Your task to perform on an android device: Open Youtube and go to the subscriptions tab Image 0: 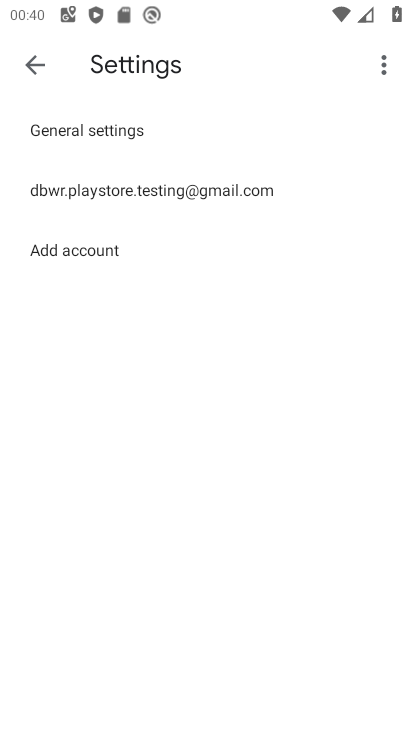
Step 0: press home button
Your task to perform on an android device: Open Youtube and go to the subscriptions tab Image 1: 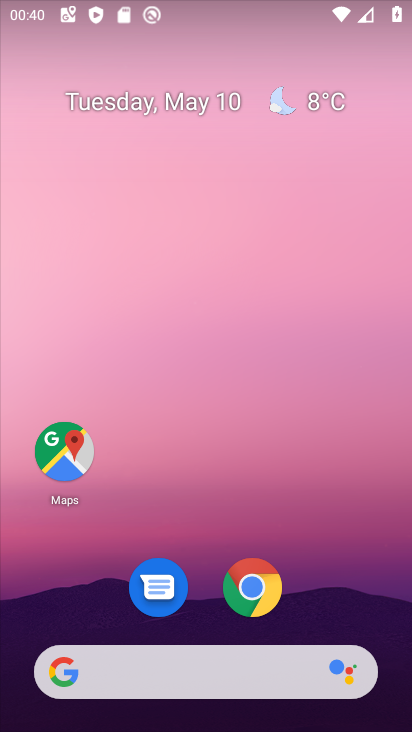
Step 1: drag from (379, 401) to (375, 285)
Your task to perform on an android device: Open Youtube and go to the subscriptions tab Image 2: 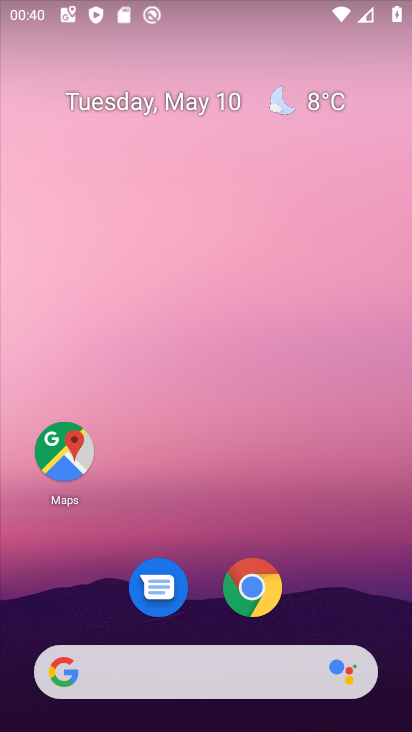
Step 2: drag from (395, 662) to (377, 133)
Your task to perform on an android device: Open Youtube and go to the subscriptions tab Image 3: 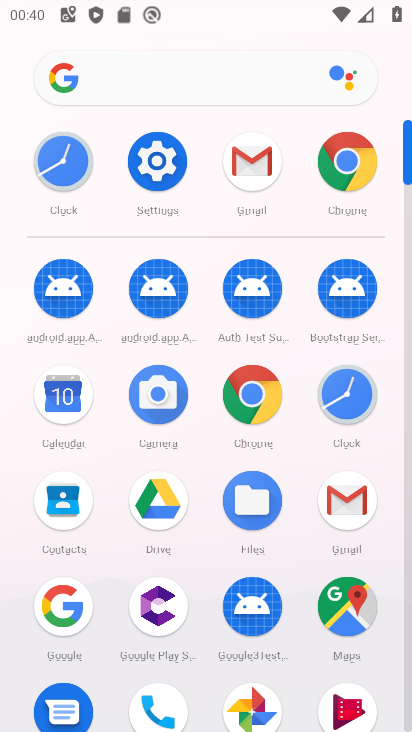
Step 3: click (404, 55)
Your task to perform on an android device: Open Youtube and go to the subscriptions tab Image 4: 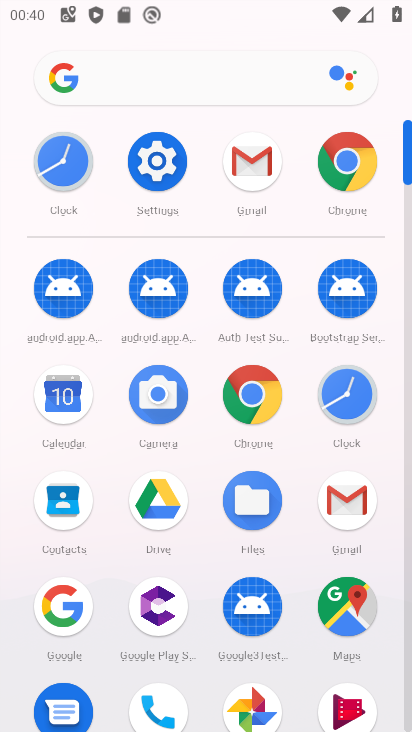
Step 4: drag from (408, 141) to (408, 49)
Your task to perform on an android device: Open Youtube and go to the subscriptions tab Image 5: 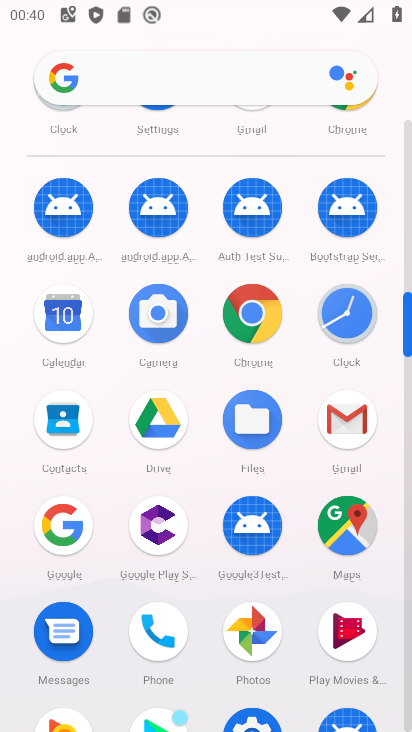
Step 5: drag from (411, 307) to (397, 407)
Your task to perform on an android device: Open Youtube and go to the subscriptions tab Image 6: 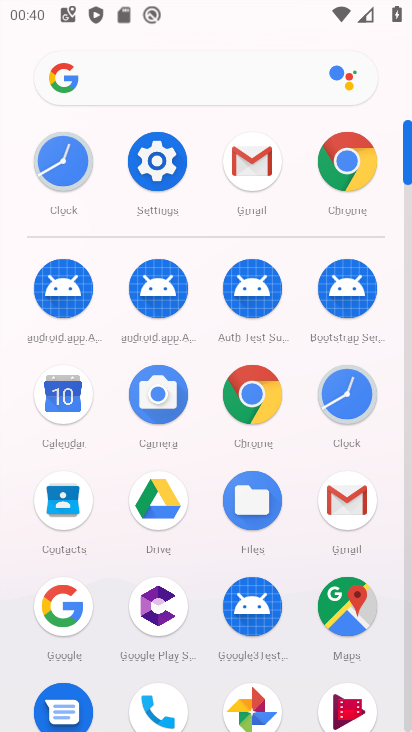
Step 6: drag from (407, 133) to (407, 39)
Your task to perform on an android device: Open Youtube and go to the subscriptions tab Image 7: 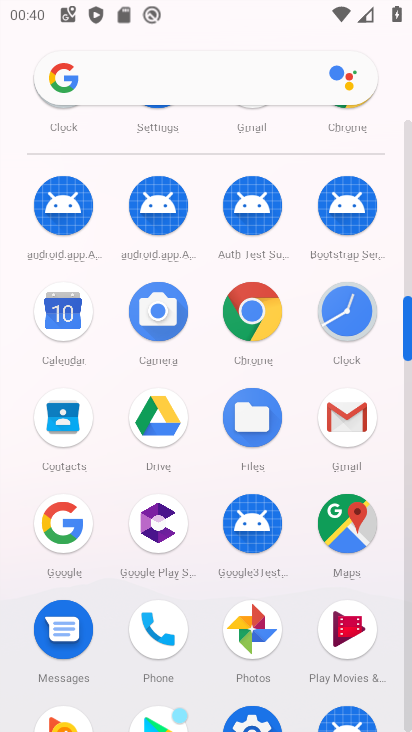
Step 7: drag from (408, 290) to (410, 214)
Your task to perform on an android device: Open Youtube and go to the subscriptions tab Image 8: 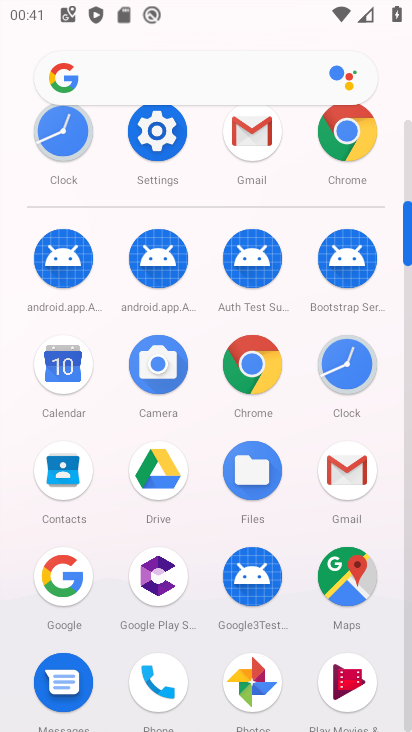
Step 8: drag from (408, 203) to (409, 147)
Your task to perform on an android device: Open Youtube and go to the subscriptions tab Image 9: 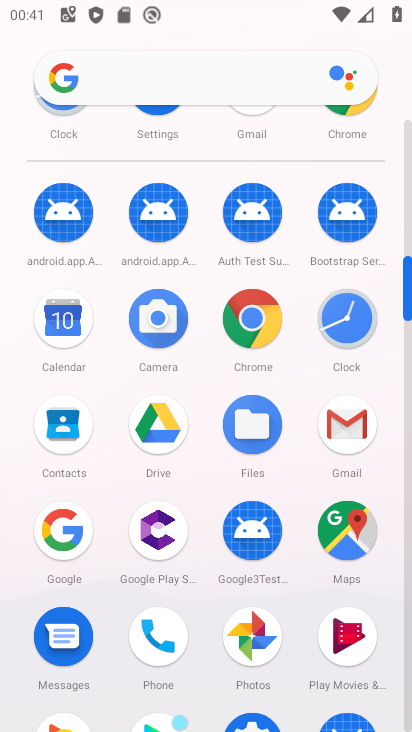
Step 9: drag from (407, 261) to (405, 181)
Your task to perform on an android device: Open Youtube and go to the subscriptions tab Image 10: 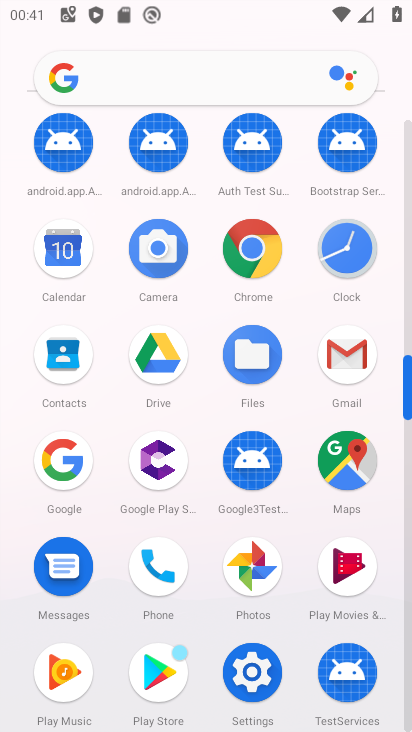
Step 10: drag from (407, 339) to (409, 263)
Your task to perform on an android device: Open Youtube and go to the subscriptions tab Image 11: 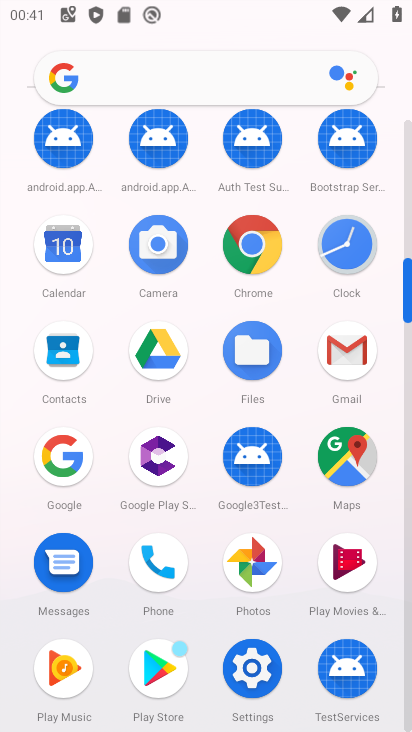
Step 11: drag from (407, 254) to (403, 113)
Your task to perform on an android device: Open Youtube and go to the subscriptions tab Image 12: 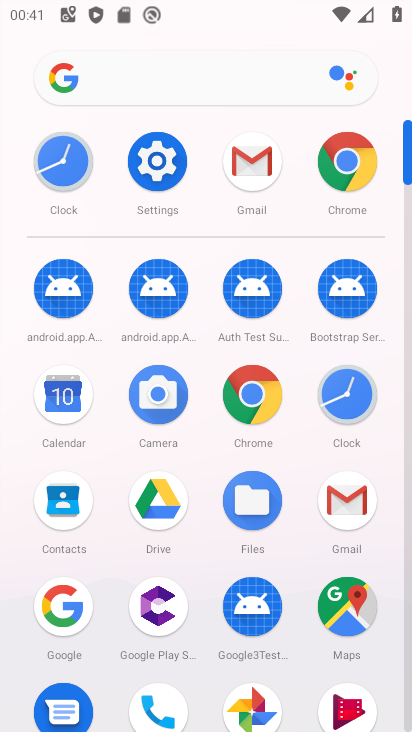
Step 12: drag from (406, 126) to (405, 60)
Your task to perform on an android device: Open Youtube and go to the subscriptions tab Image 13: 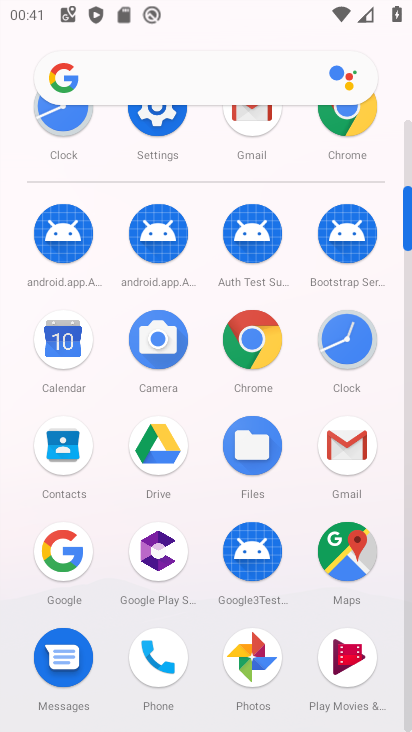
Step 13: drag from (408, 188) to (408, 124)
Your task to perform on an android device: Open Youtube and go to the subscriptions tab Image 14: 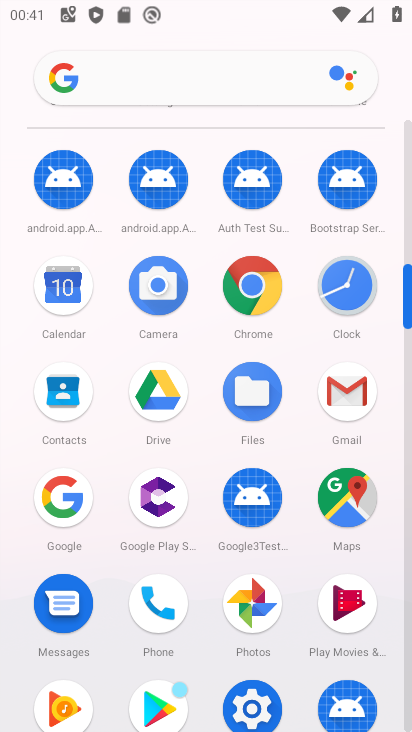
Step 14: drag from (407, 217) to (407, 176)
Your task to perform on an android device: Open Youtube and go to the subscriptions tab Image 15: 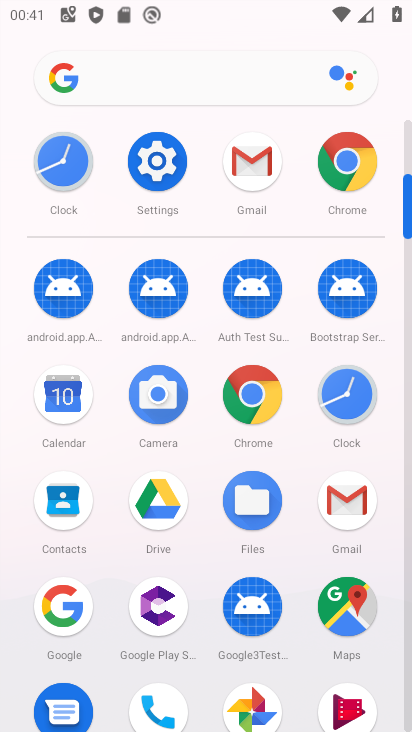
Step 15: click (408, 179)
Your task to perform on an android device: Open Youtube and go to the subscriptions tab Image 16: 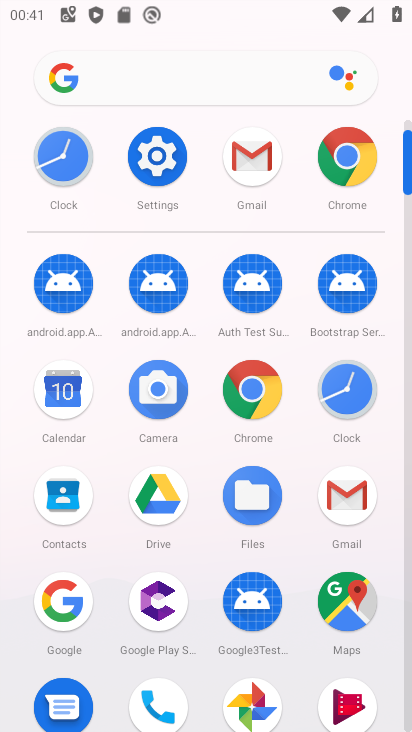
Step 16: drag from (406, 185) to (409, 107)
Your task to perform on an android device: Open Youtube and go to the subscriptions tab Image 17: 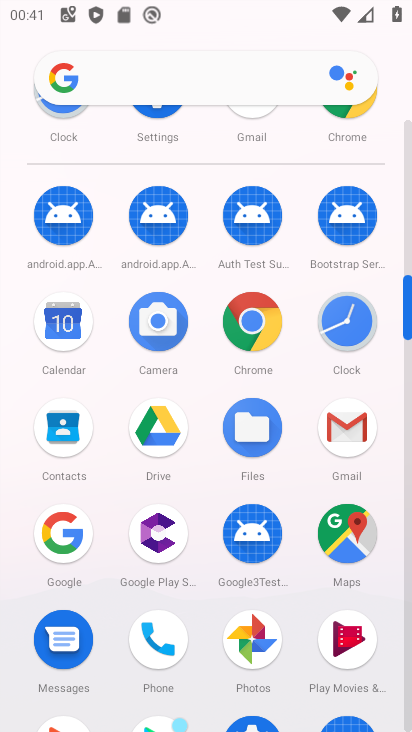
Step 17: drag from (410, 276) to (408, 194)
Your task to perform on an android device: Open Youtube and go to the subscriptions tab Image 18: 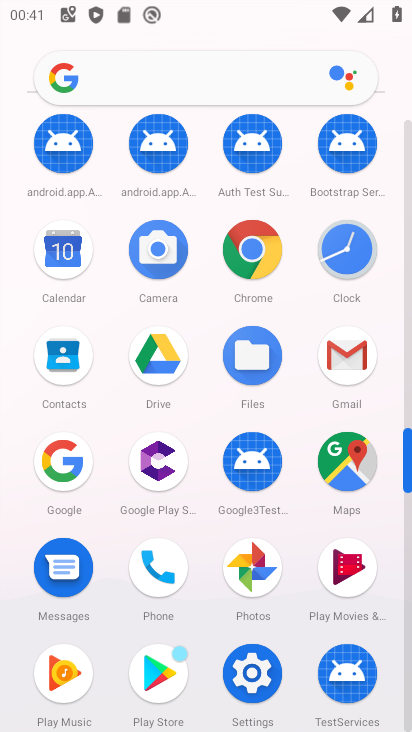
Step 18: drag from (407, 431) to (411, 229)
Your task to perform on an android device: Open Youtube and go to the subscriptions tab Image 19: 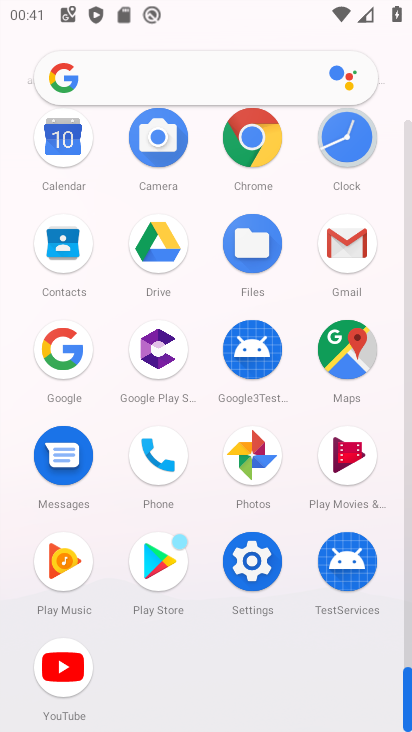
Step 19: click (65, 670)
Your task to perform on an android device: Open Youtube and go to the subscriptions tab Image 20: 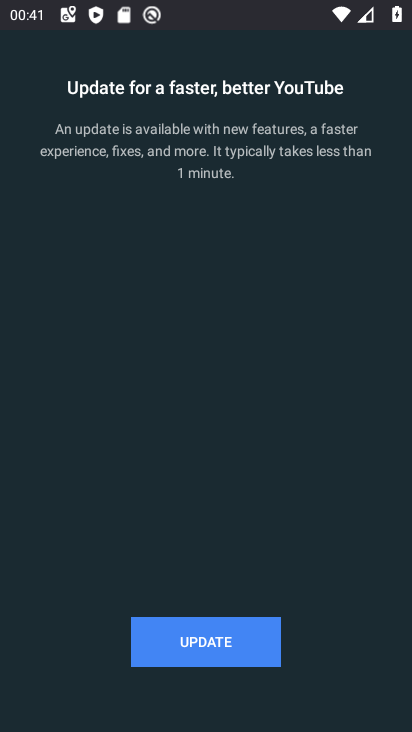
Step 20: click (208, 643)
Your task to perform on an android device: Open Youtube and go to the subscriptions tab Image 21: 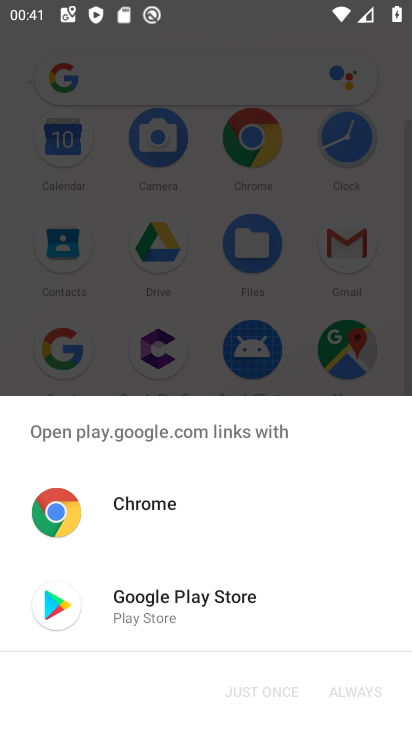
Step 21: click (87, 611)
Your task to perform on an android device: Open Youtube and go to the subscriptions tab Image 22: 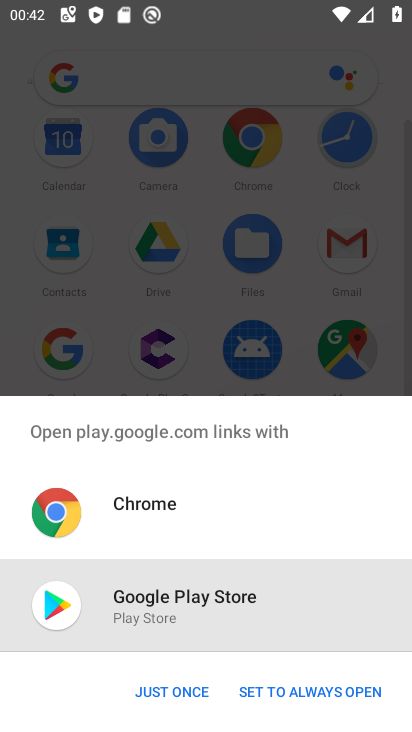
Step 22: click (162, 688)
Your task to perform on an android device: Open Youtube and go to the subscriptions tab Image 23: 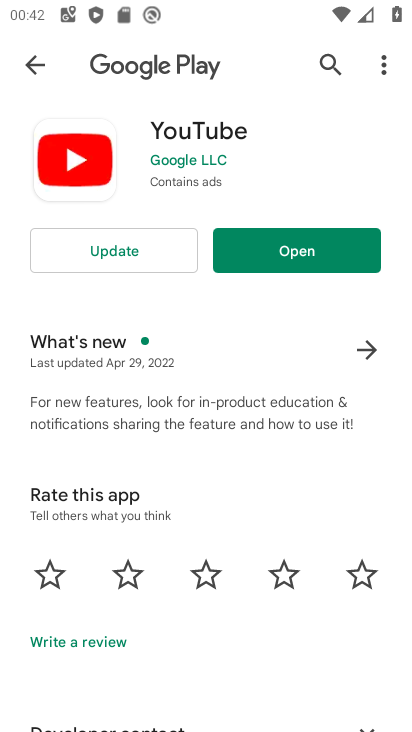
Step 23: click (143, 249)
Your task to perform on an android device: Open Youtube and go to the subscriptions tab Image 24: 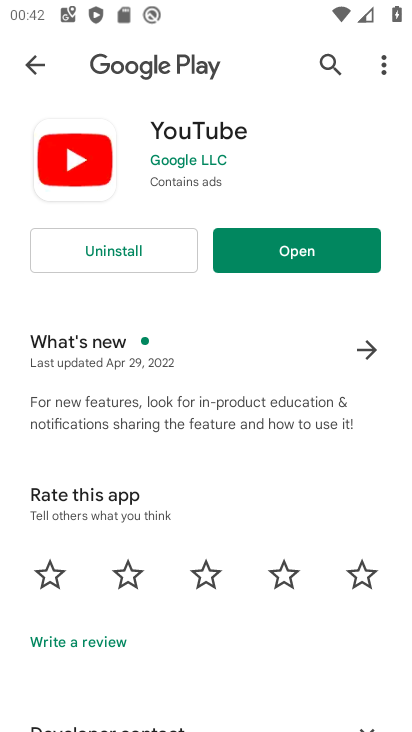
Step 24: click (274, 250)
Your task to perform on an android device: Open Youtube and go to the subscriptions tab Image 25: 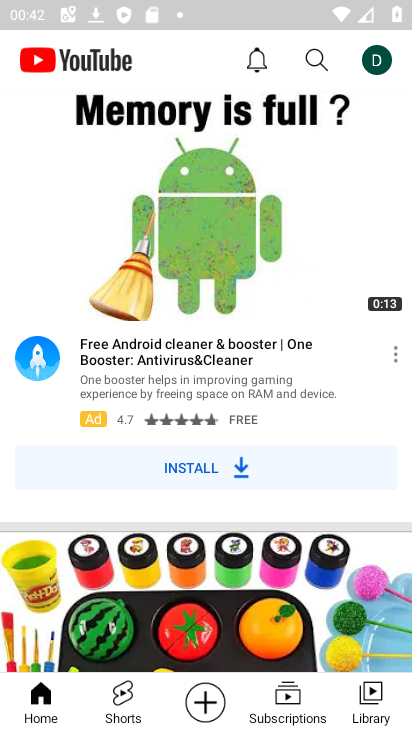
Step 25: click (282, 700)
Your task to perform on an android device: Open Youtube and go to the subscriptions tab Image 26: 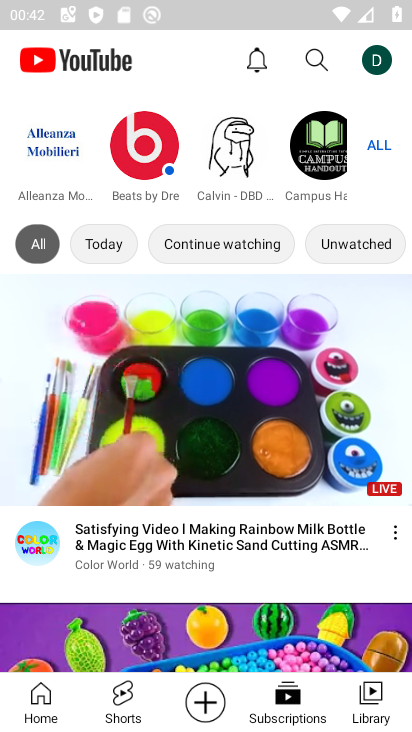
Step 26: task complete